Your task to perform on an android device: uninstall "Roku - Official Remote Control" Image 0: 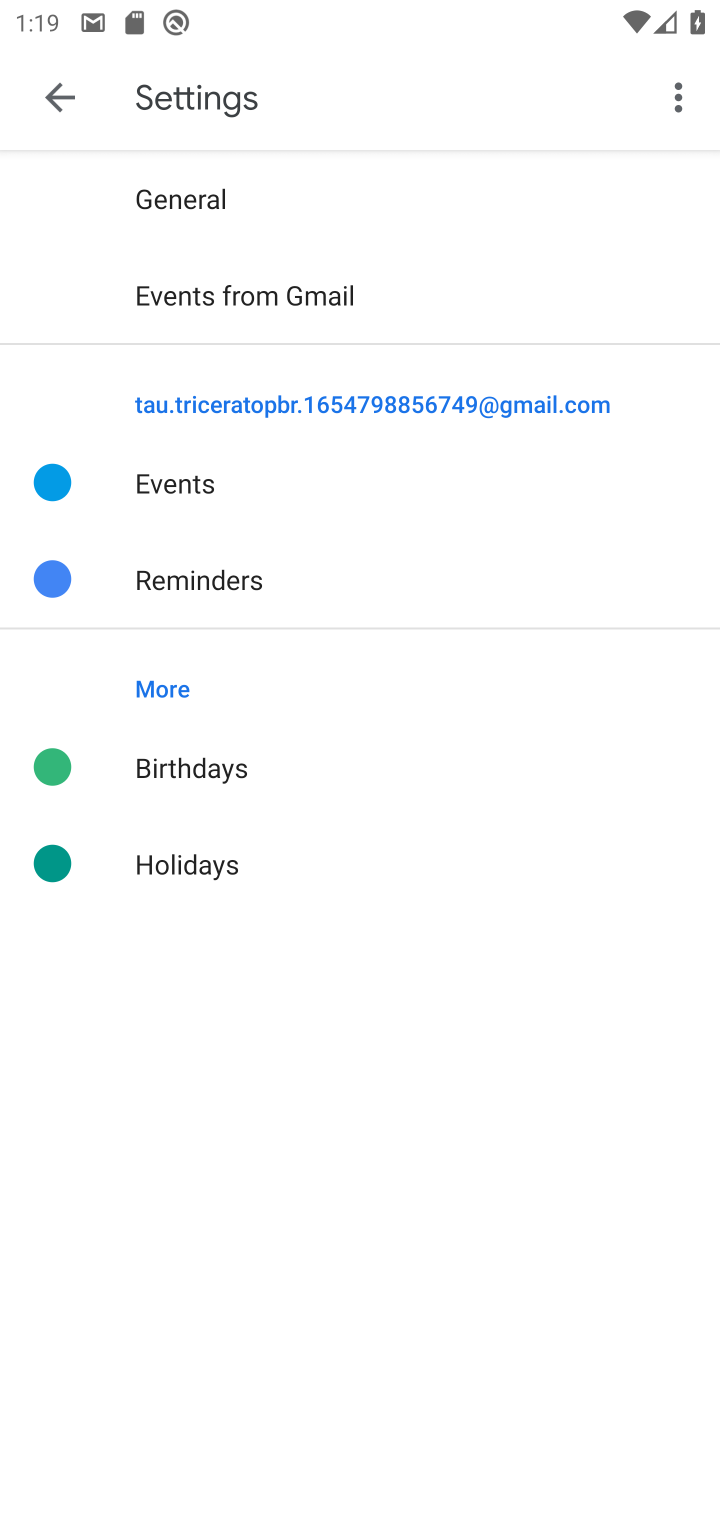
Step 0: press home button
Your task to perform on an android device: uninstall "Roku - Official Remote Control" Image 1: 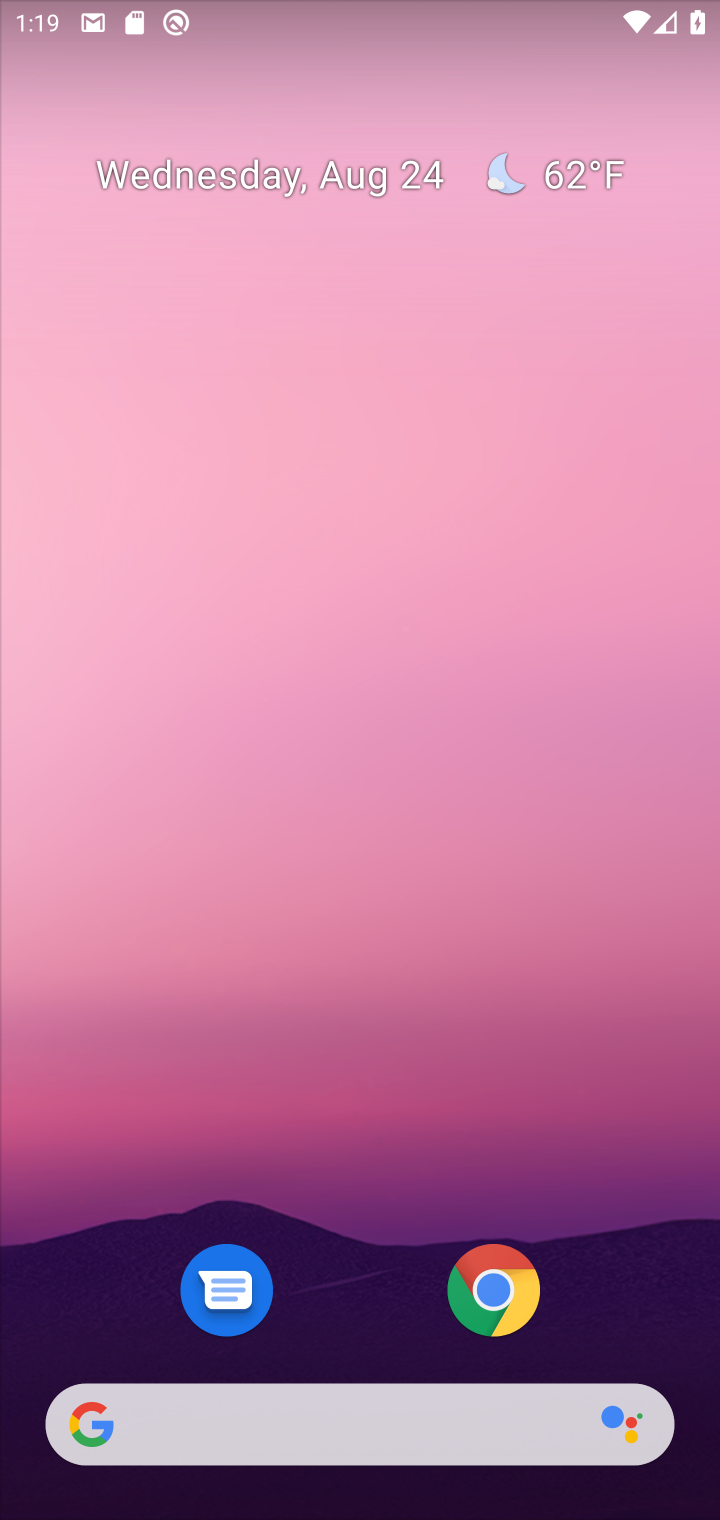
Step 1: click (420, 41)
Your task to perform on an android device: uninstall "Roku - Official Remote Control" Image 2: 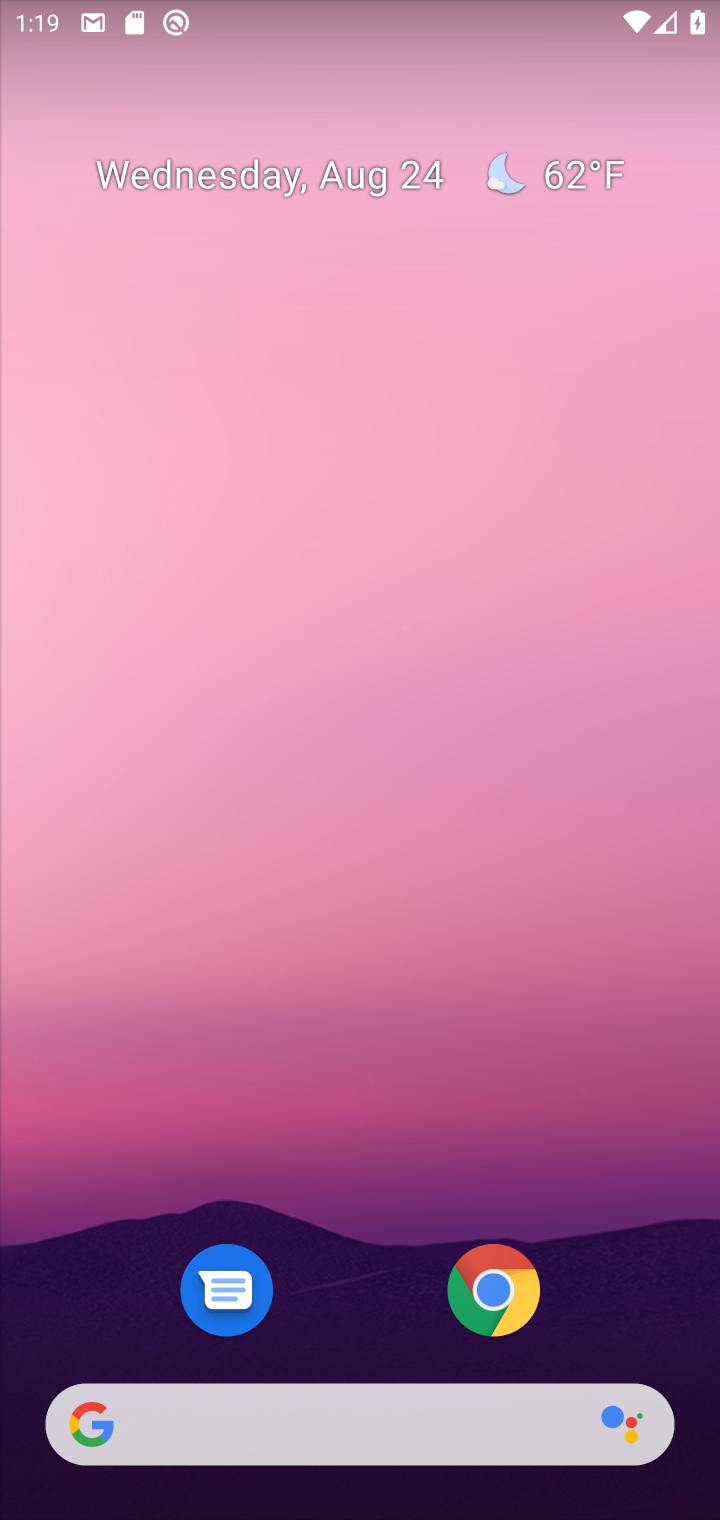
Step 2: drag from (338, 974) to (355, 310)
Your task to perform on an android device: uninstall "Roku - Official Remote Control" Image 3: 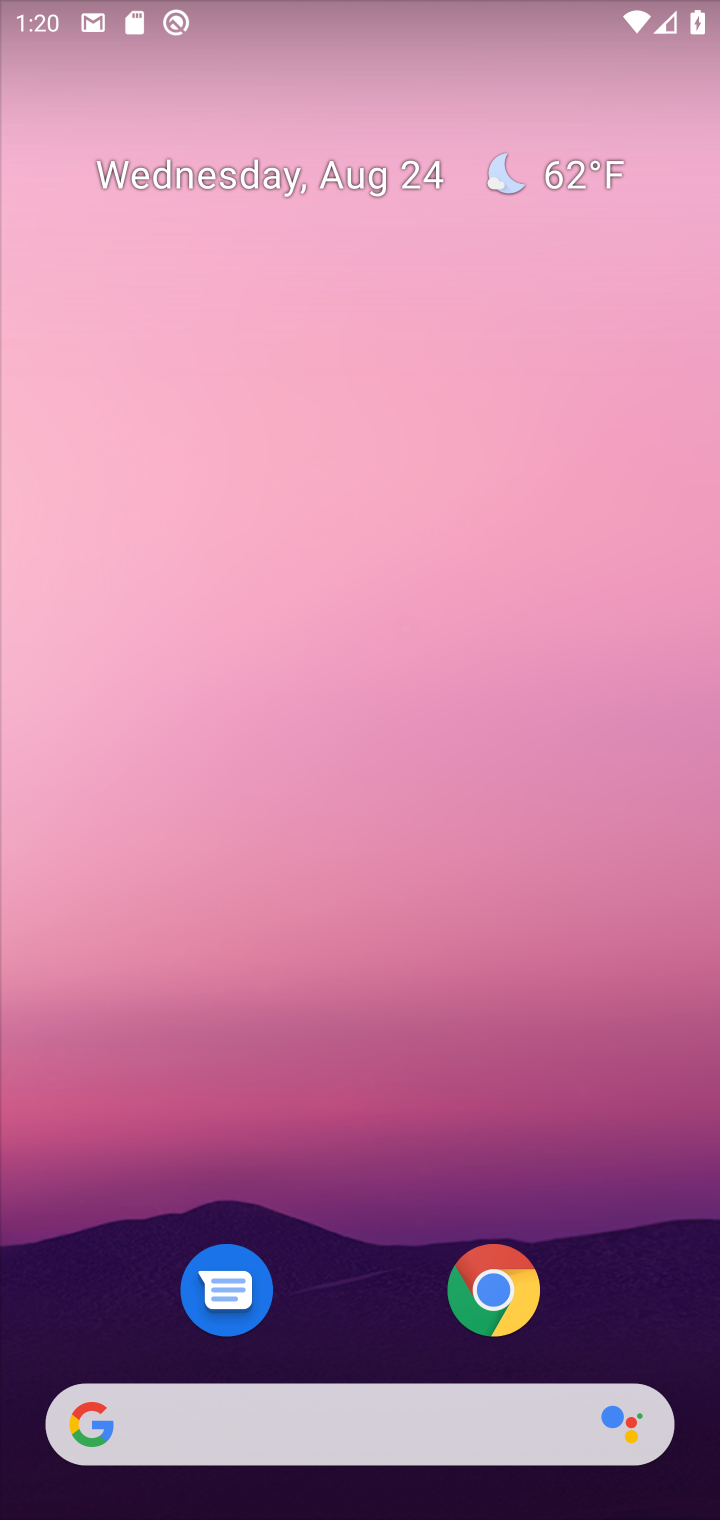
Step 3: drag from (343, 927) to (297, 184)
Your task to perform on an android device: uninstall "Roku - Official Remote Control" Image 4: 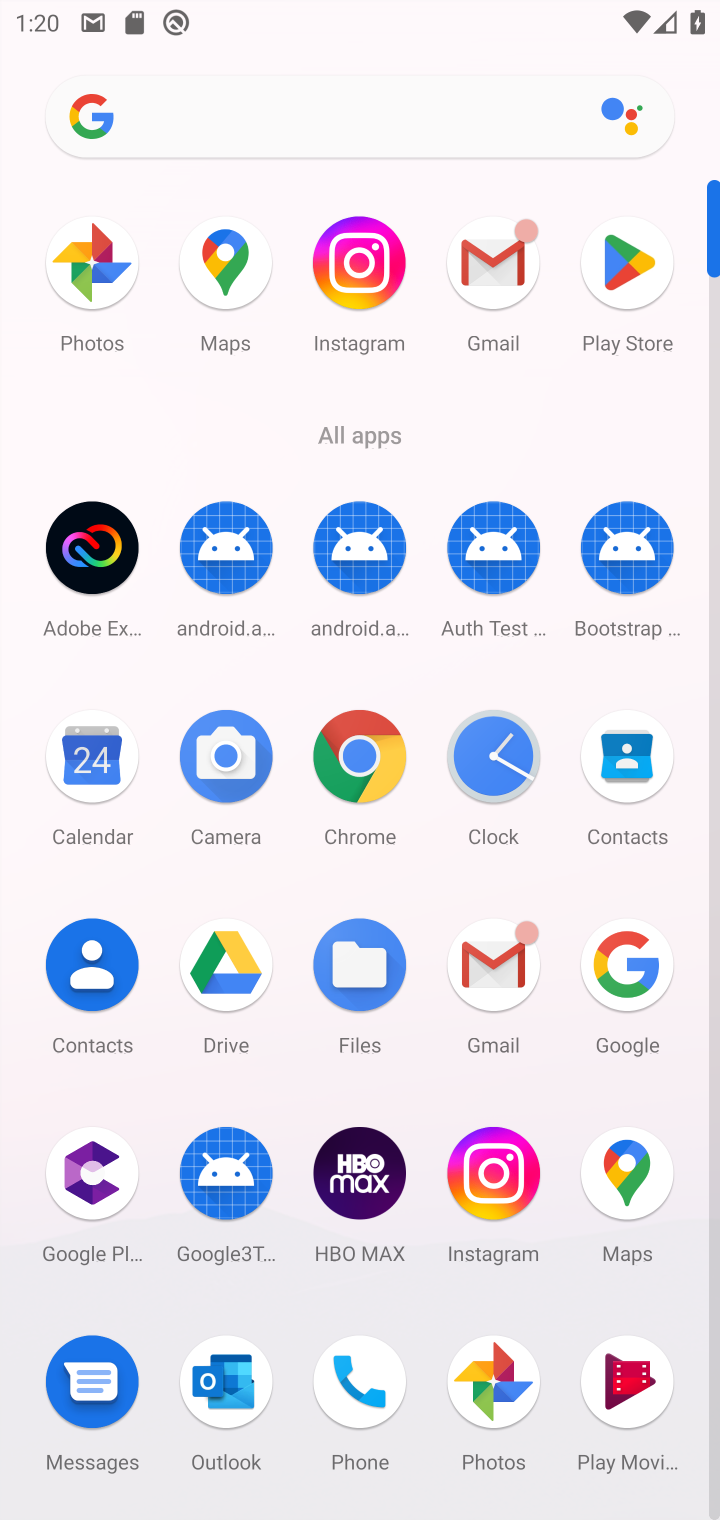
Step 4: click (604, 265)
Your task to perform on an android device: uninstall "Roku - Official Remote Control" Image 5: 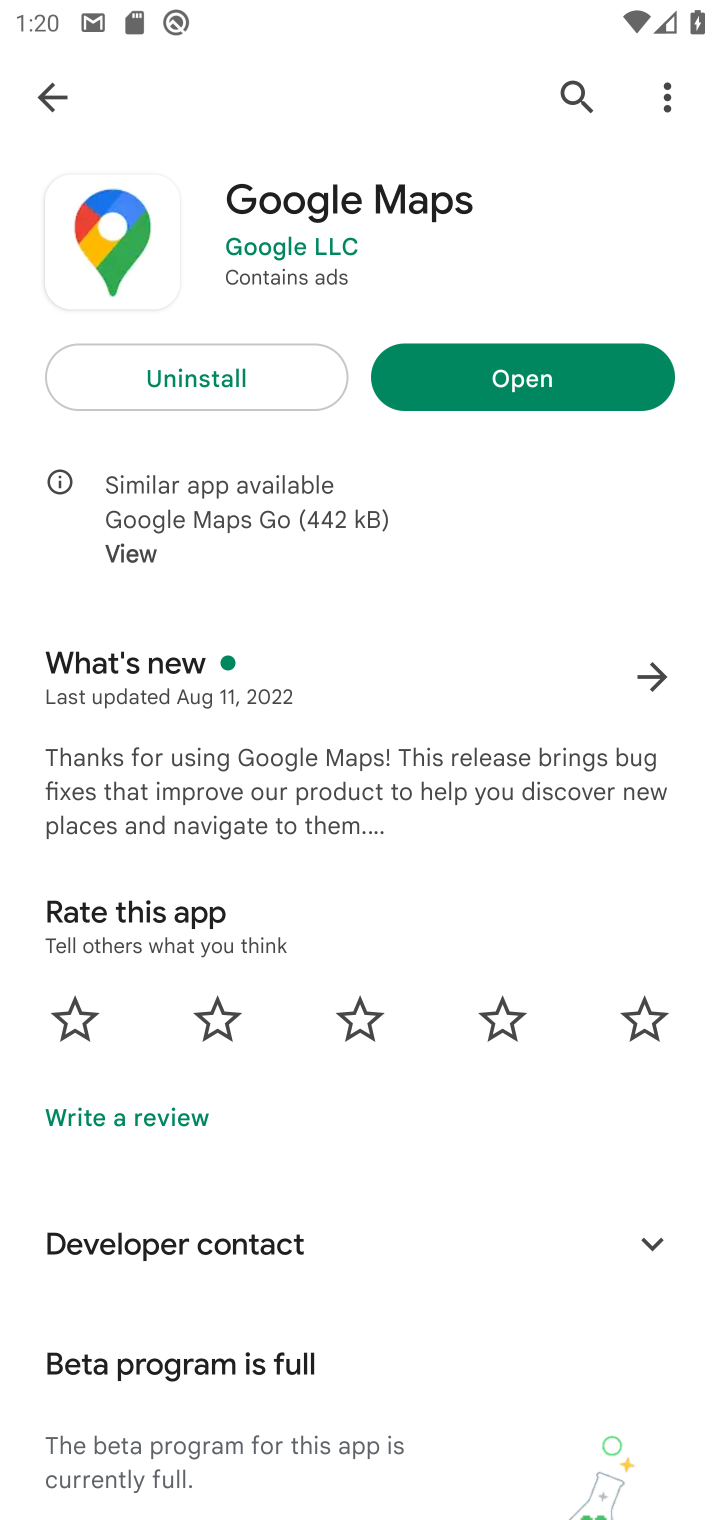
Step 5: click (49, 99)
Your task to perform on an android device: uninstall "Roku - Official Remote Control" Image 6: 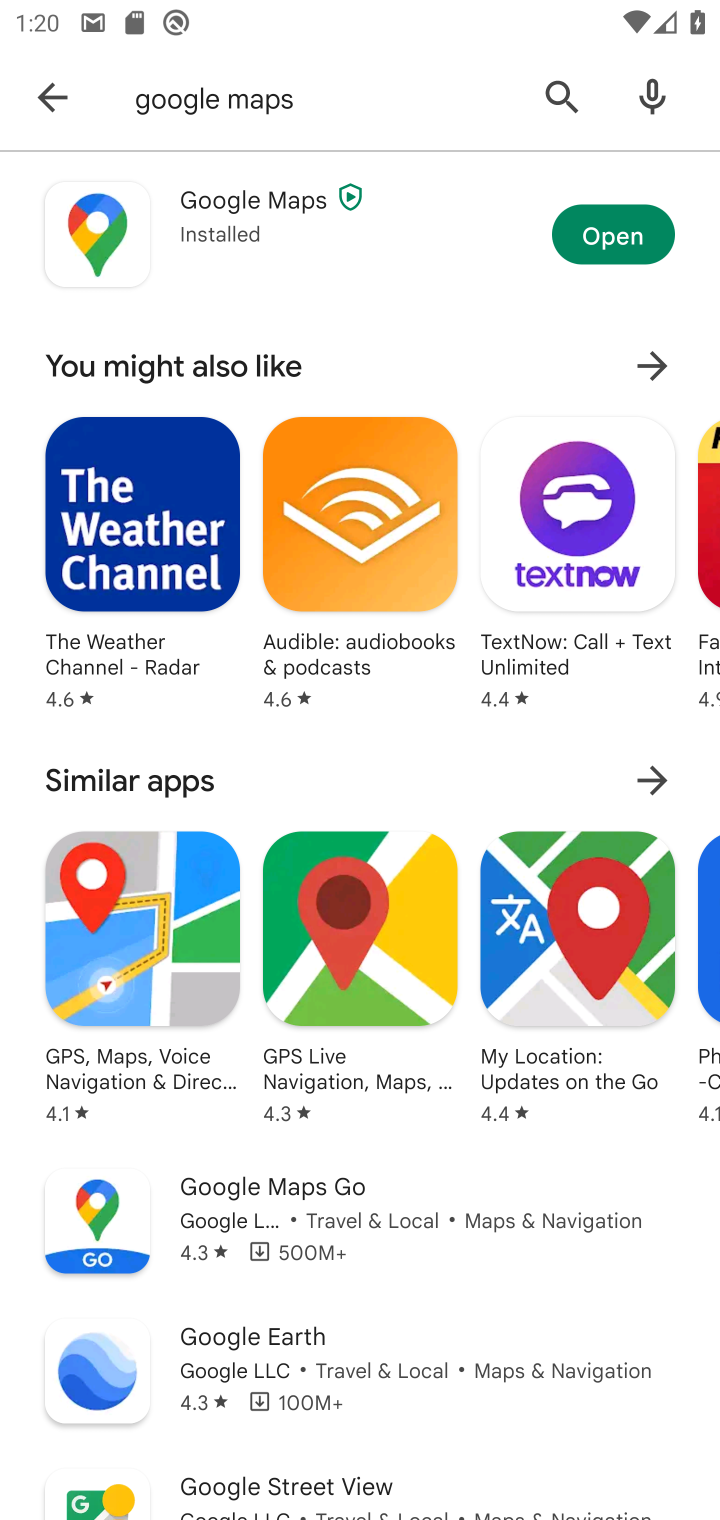
Step 6: click (49, 99)
Your task to perform on an android device: uninstall "Roku - Official Remote Control" Image 7: 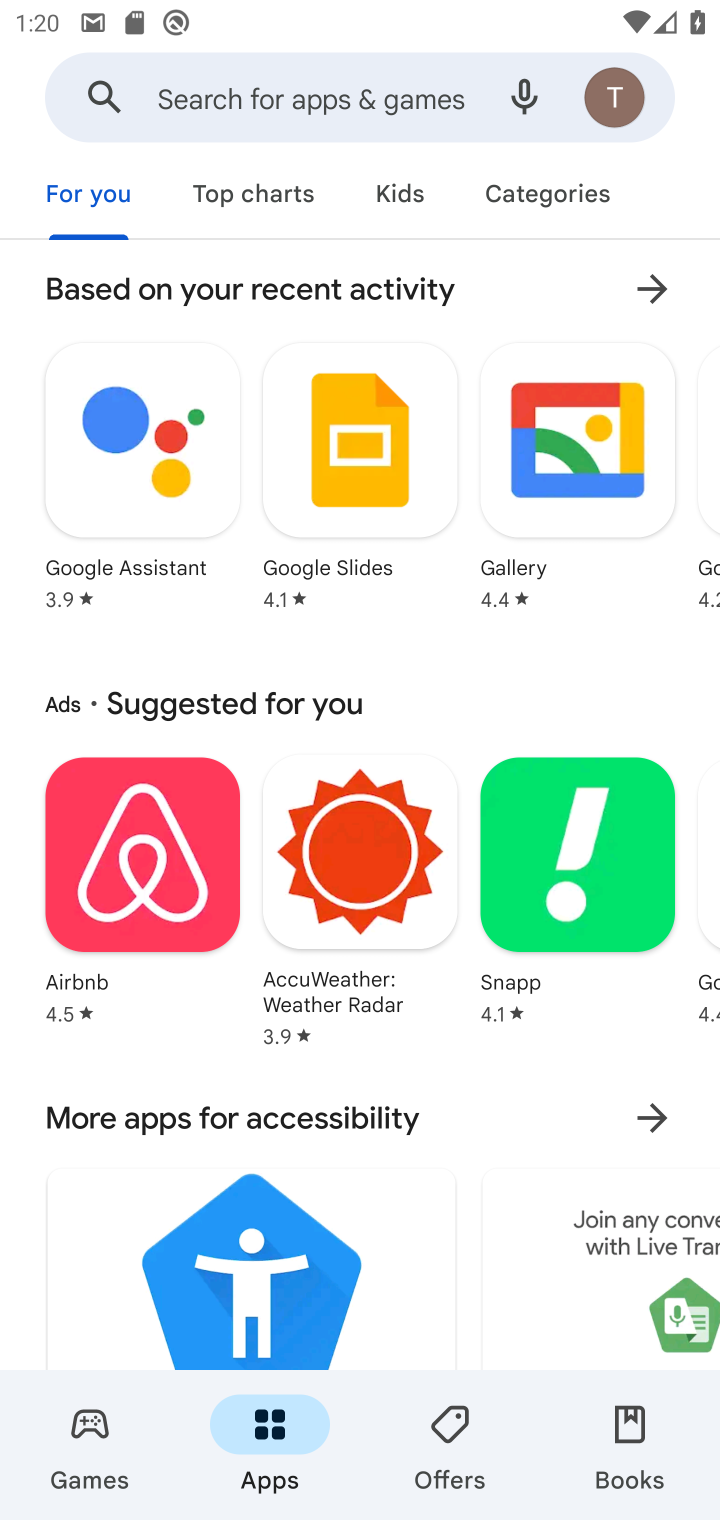
Step 7: click (293, 94)
Your task to perform on an android device: uninstall "Roku - Official Remote Control" Image 8: 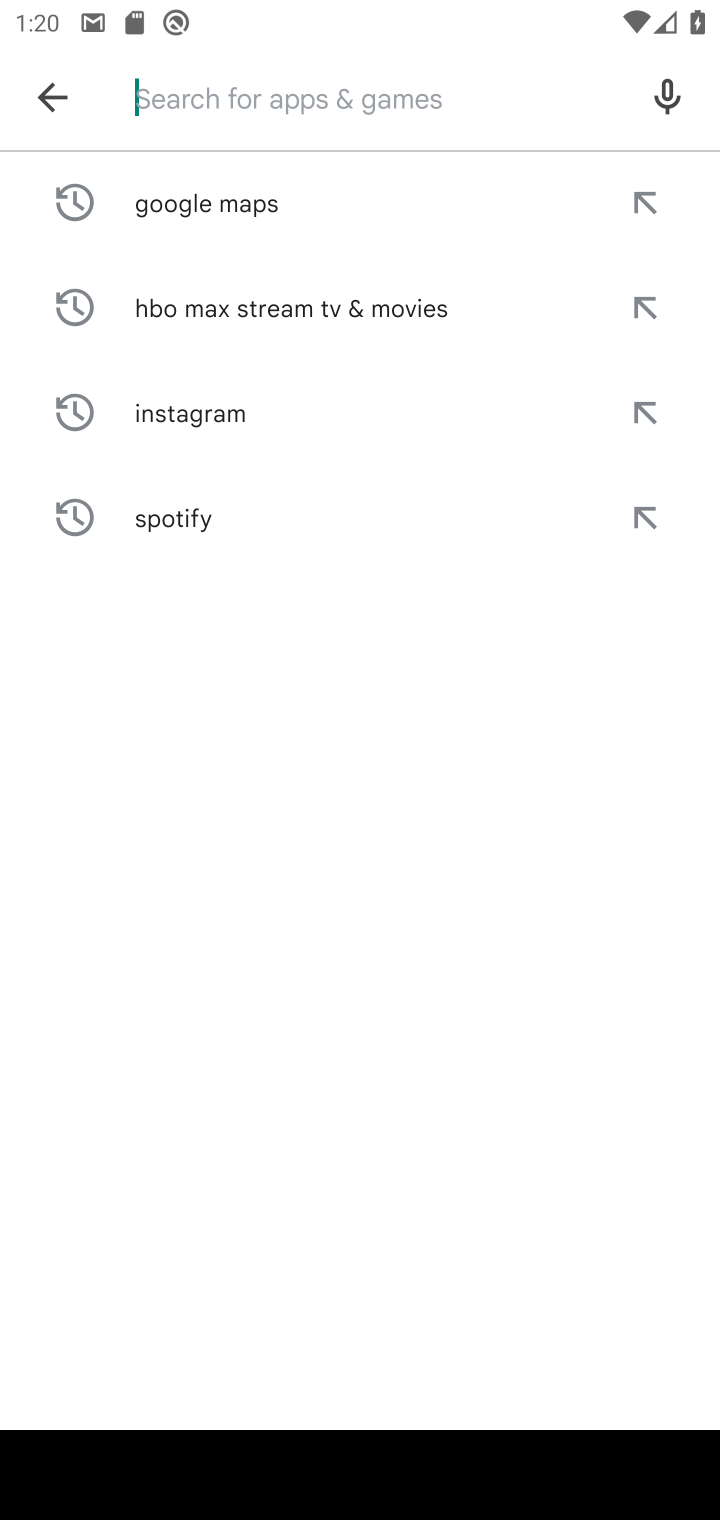
Step 8: type "Roku"
Your task to perform on an android device: uninstall "Roku - Official Remote Control" Image 9: 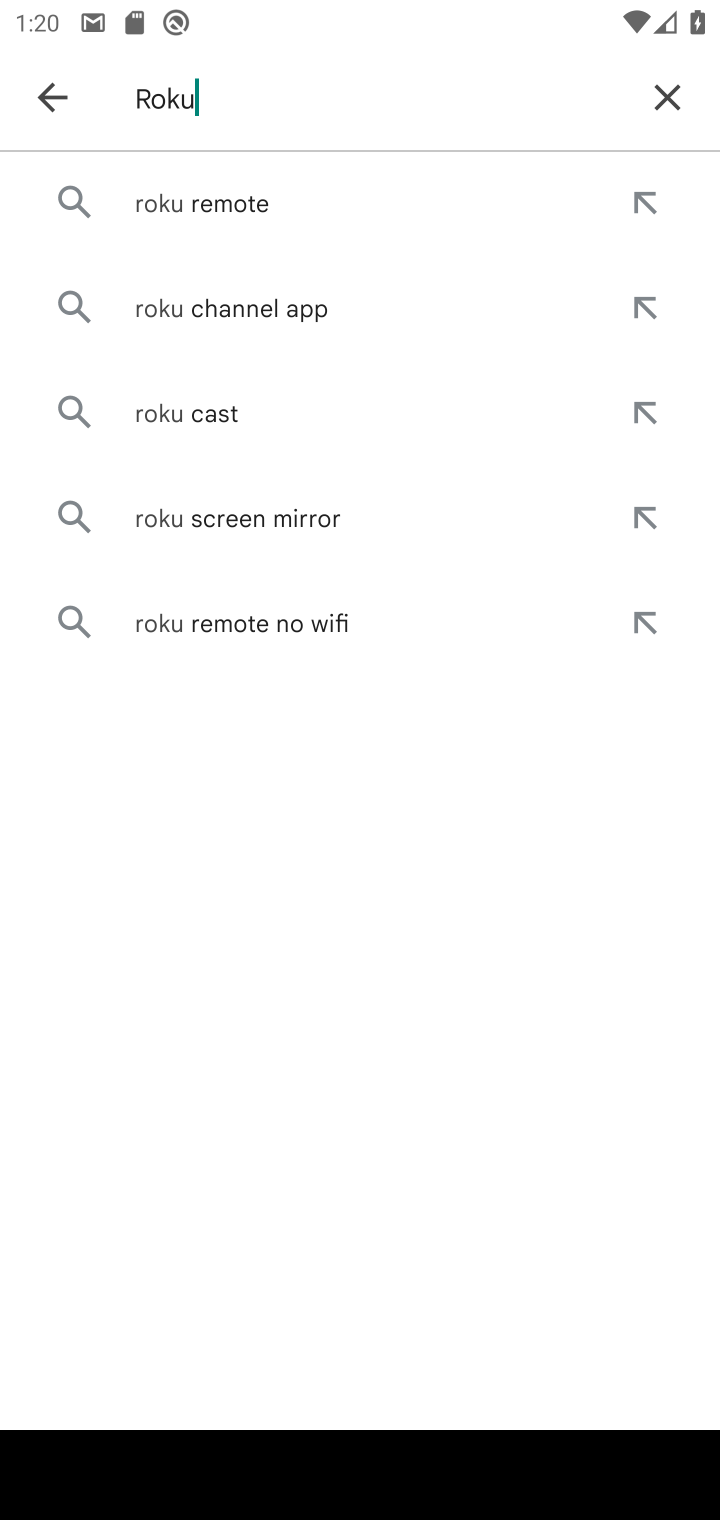
Step 9: click (221, 210)
Your task to perform on an android device: uninstall "Roku - Official Remote Control" Image 10: 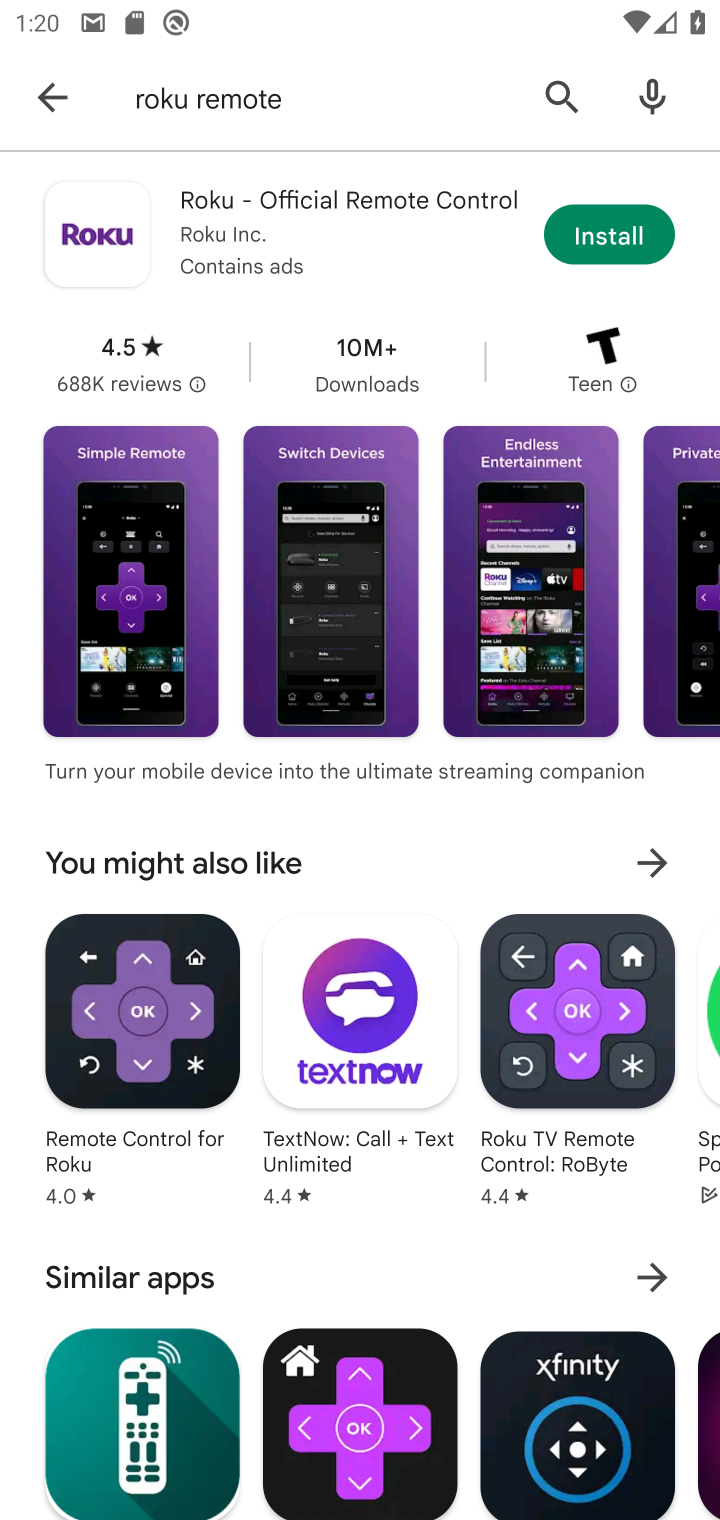
Step 10: task complete